Your task to perform on an android device: Open calendar and show me the second week of next month Image 0: 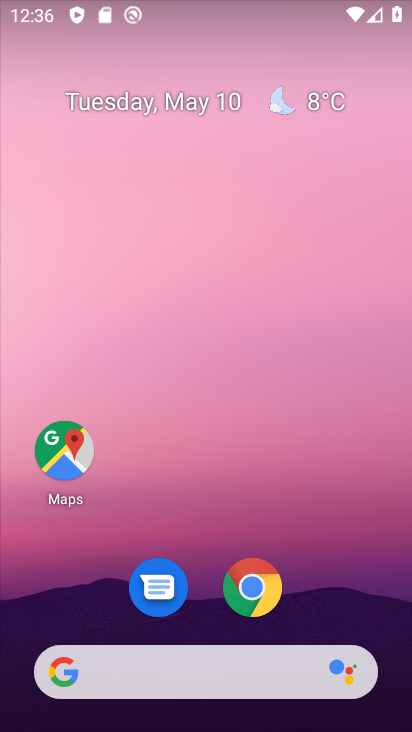
Step 0: drag from (326, 558) to (241, 3)
Your task to perform on an android device: Open calendar and show me the second week of next month Image 1: 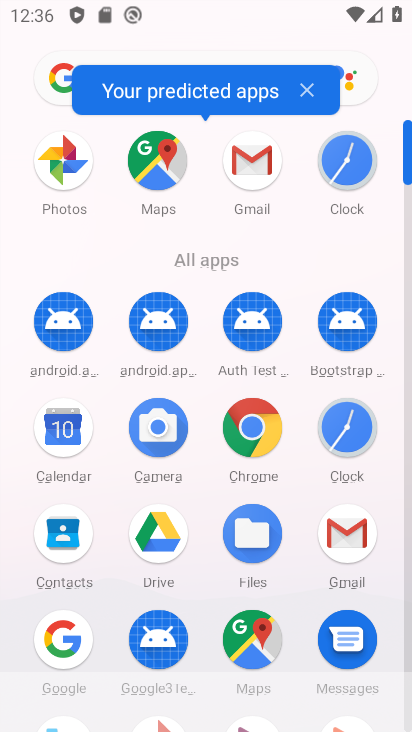
Step 1: click (64, 429)
Your task to perform on an android device: Open calendar and show me the second week of next month Image 2: 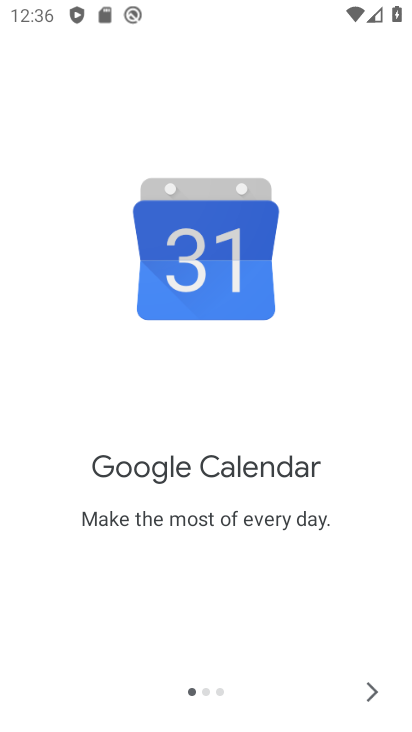
Step 2: click (371, 698)
Your task to perform on an android device: Open calendar and show me the second week of next month Image 3: 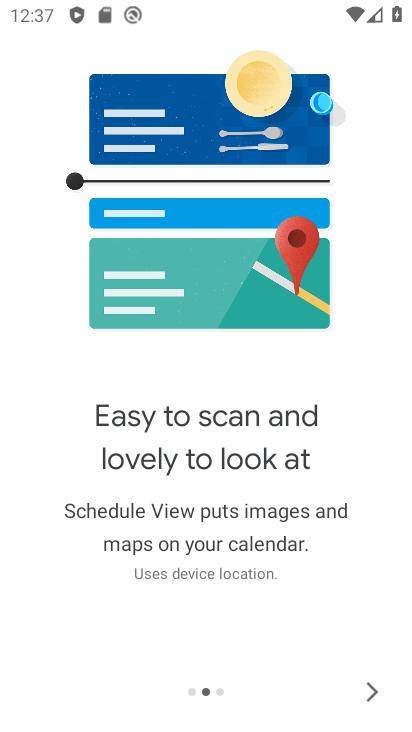
Step 3: click (372, 699)
Your task to perform on an android device: Open calendar and show me the second week of next month Image 4: 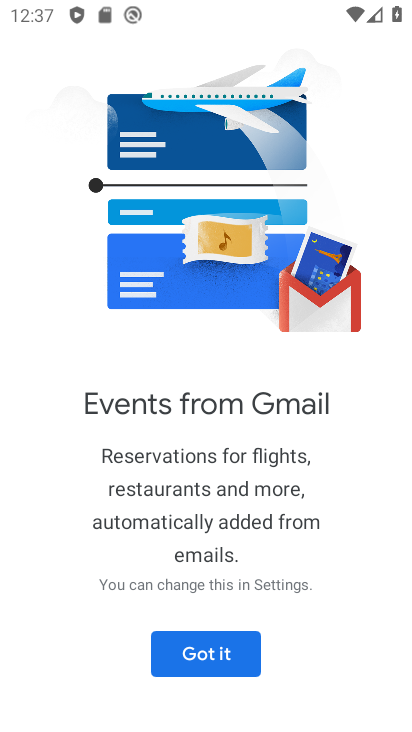
Step 4: click (219, 652)
Your task to perform on an android device: Open calendar and show me the second week of next month Image 5: 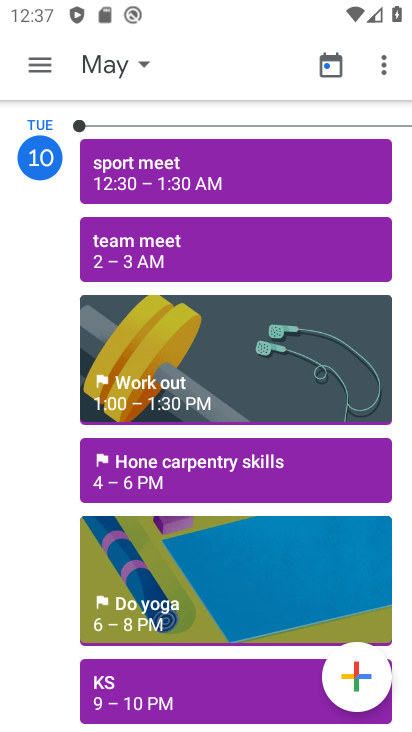
Step 5: click (32, 64)
Your task to perform on an android device: Open calendar and show me the second week of next month Image 6: 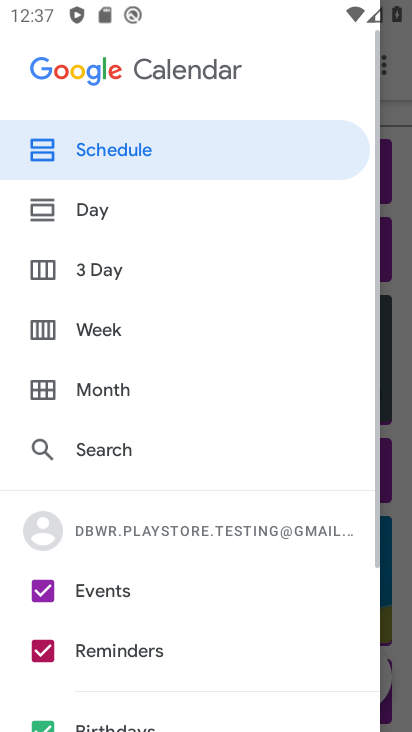
Step 6: click (121, 327)
Your task to perform on an android device: Open calendar and show me the second week of next month Image 7: 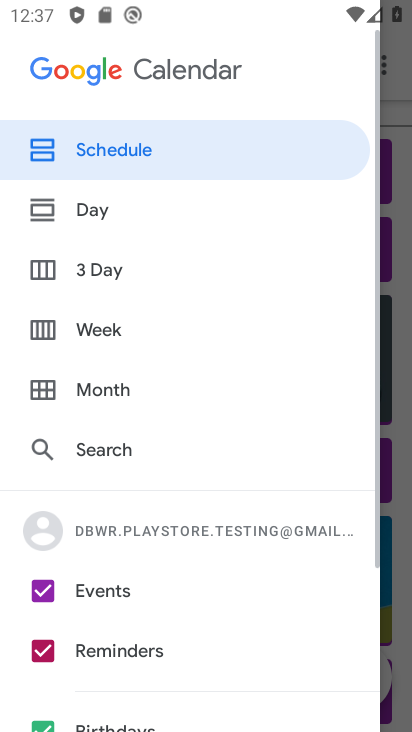
Step 7: click (106, 322)
Your task to perform on an android device: Open calendar and show me the second week of next month Image 8: 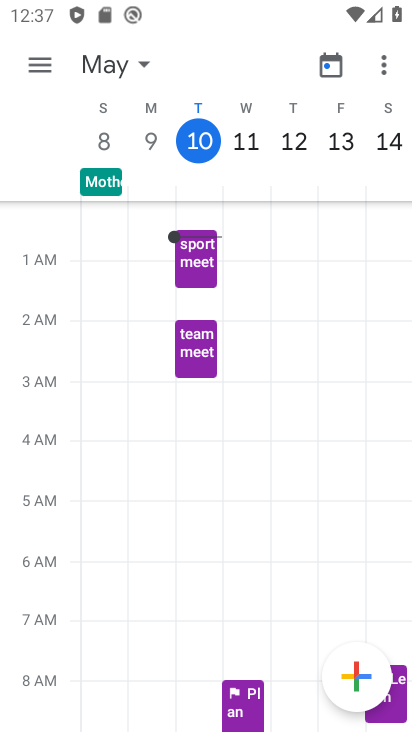
Step 8: click (127, 53)
Your task to perform on an android device: Open calendar and show me the second week of next month Image 9: 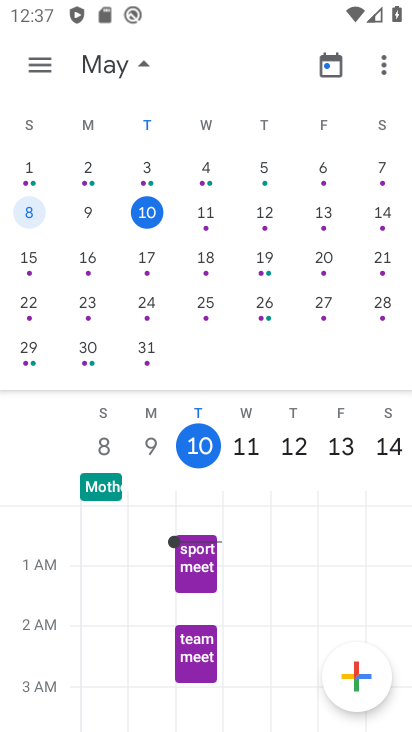
Step 9: drag from (355, 269) to (32, 247)
Your task to perform on an android device: Open calendar and show me the second week of next month Image 10: 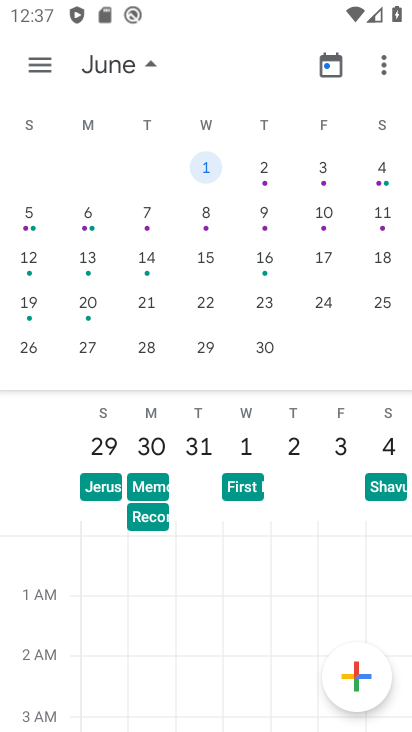
Step 10: click (85, 256)
Your task to perform on an android device: Open calendar and show me the second week of next month Image 11: 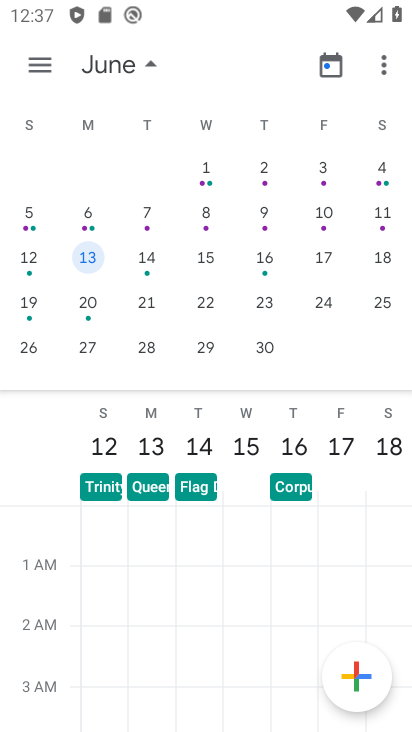
Step 11: task complete